Your task to perform on an android device: Go to Google Image 0: 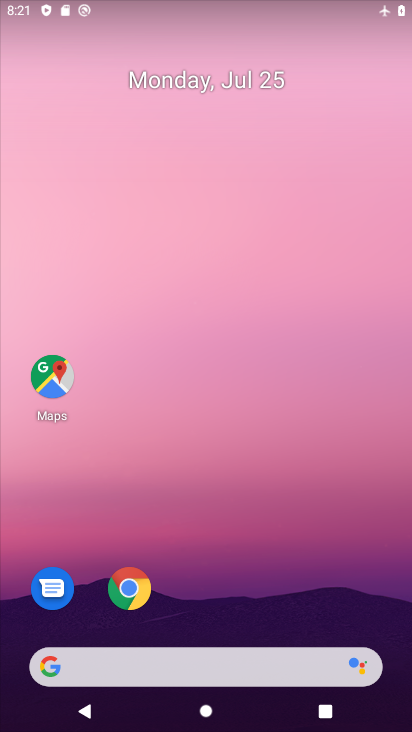
Step 0: drag from (148, 646) to (122, 108)
Your task to perform on an android device: Go to Google Image 1: 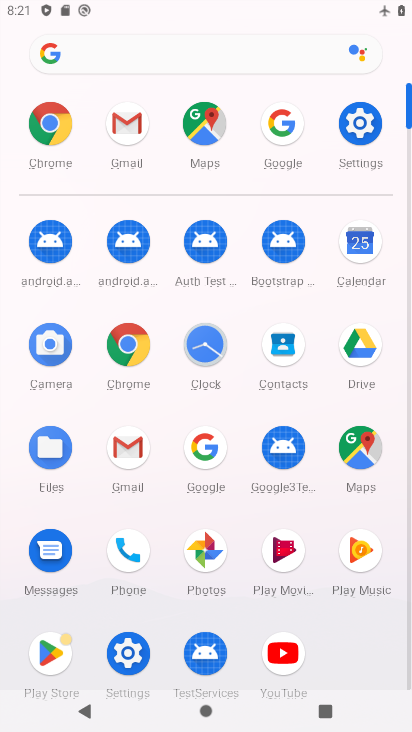
Step 1: click (204, 459)
Your task to perform on an android device: Go to Google Image 2: 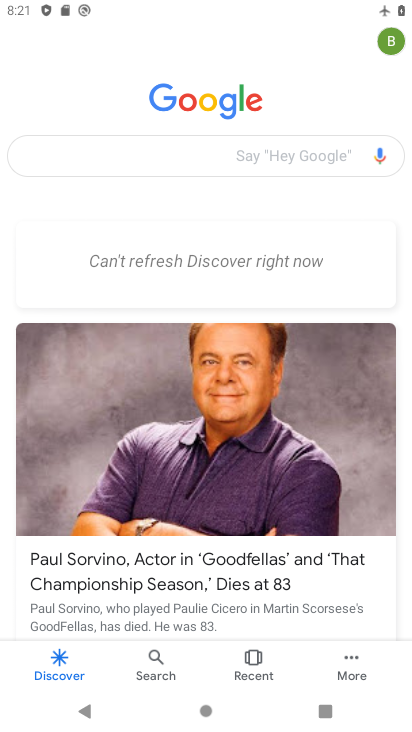
Step 2: task complete